Your task to perform on an android device: see sites visited before in the chrome app Image 0: 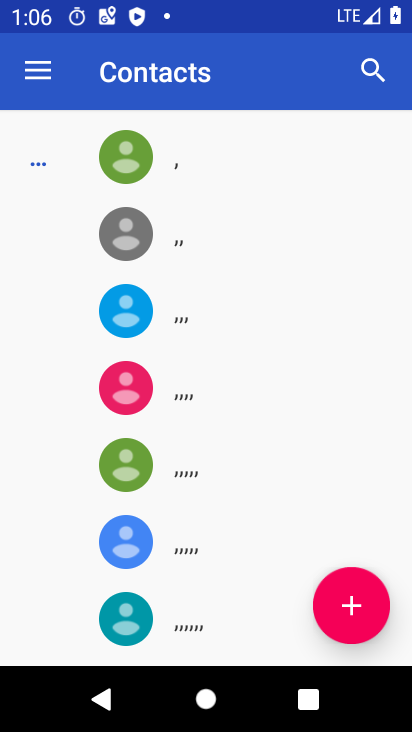
Step 0: press home button
Your task to perform on an android device: see sites visited before in the chrome app Image 1: 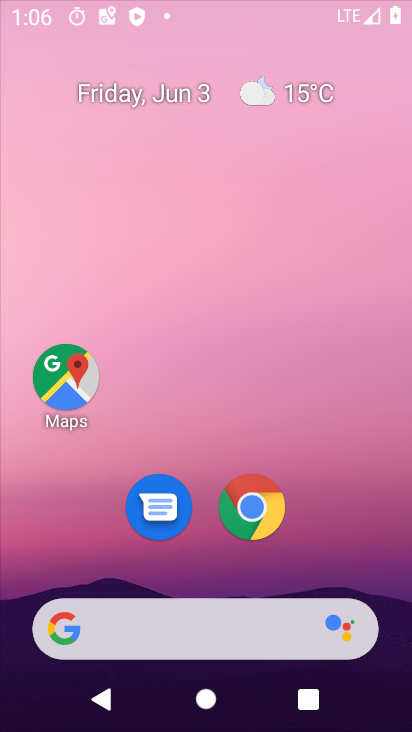
Step 1: drag from (401, 646) to (272, 80)
Your task to perform on an android device: see sites visited before in the chrome app Image 2: 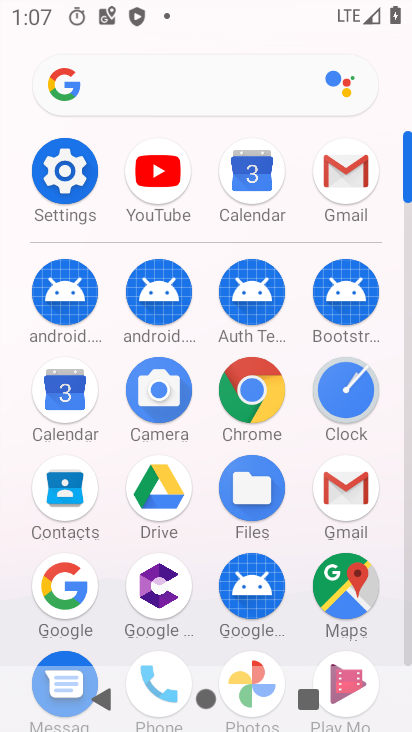
Step 2: click (260, 412)
Your task to perform on an android device: see sites visited before in the chrome app Image 3: 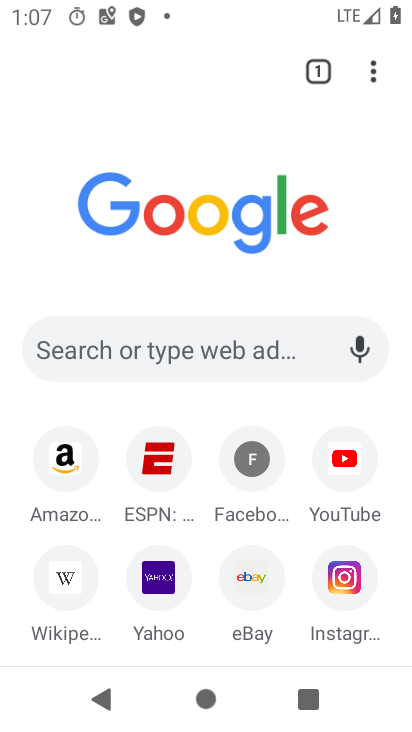
Step 3: click (369, 66)
Your task to perform on an android device: see sites visited before in the chrome app Image 4: 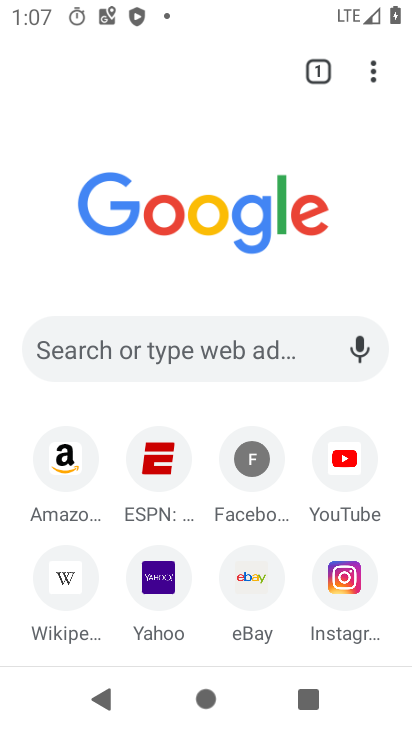
Step 4: click (380, 60)
Your task to perform on an android device: see sites visited before in the chrome app Image 5: 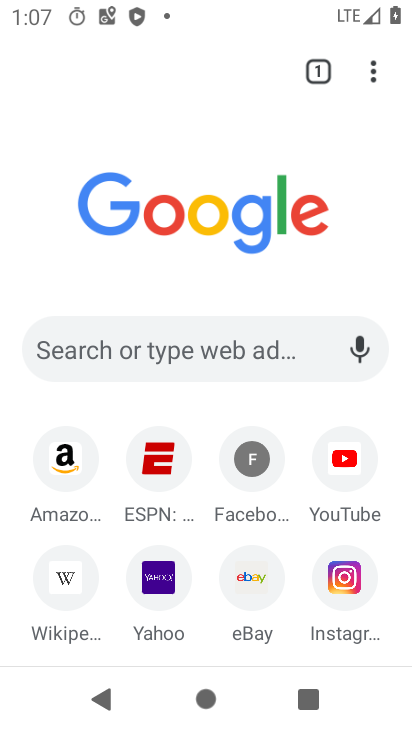
Step 5: click (377, 60)
Your task to perform on an android device: see sites visited before in the chrome app Image 6: 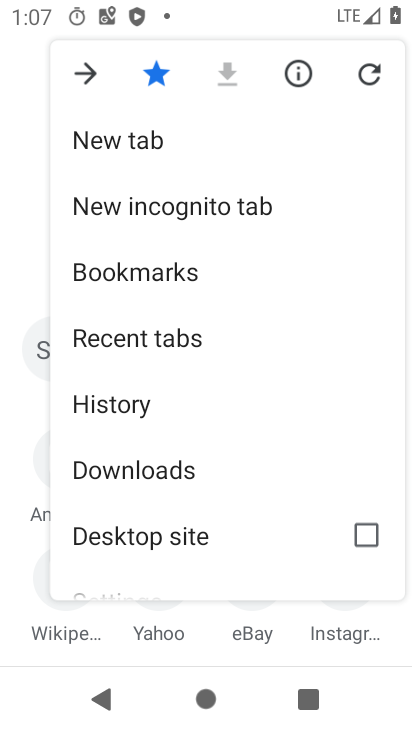
Step 6: click (150, 523)
Your task to perform on an android device: see sites visited before in the chrome app Image 7: 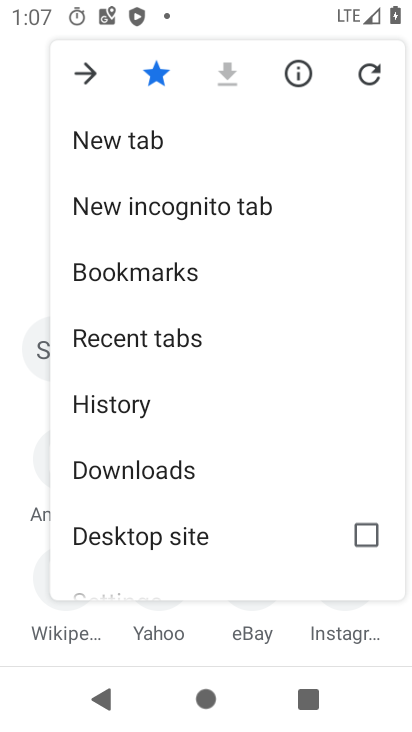
Step 7: drag from (153, 484) to (145, 162)
Your task to perform on an android device: see sites visited before in the chrome app Image 8: 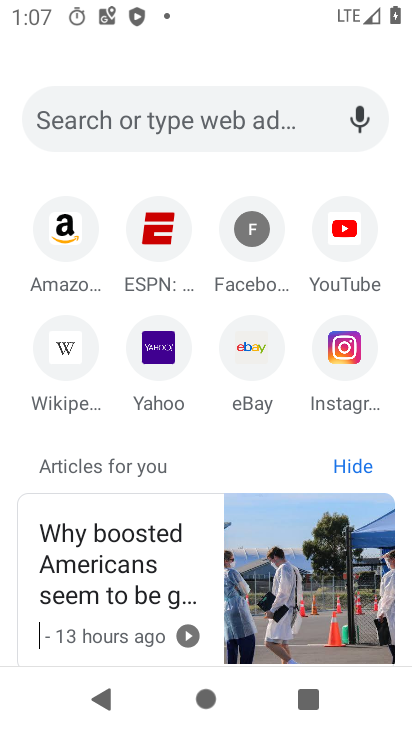
Step 8: drag from (277, 230) to (223, 715)
Your task to perform on an android device: see sites visited before in the chrome app Image 9: 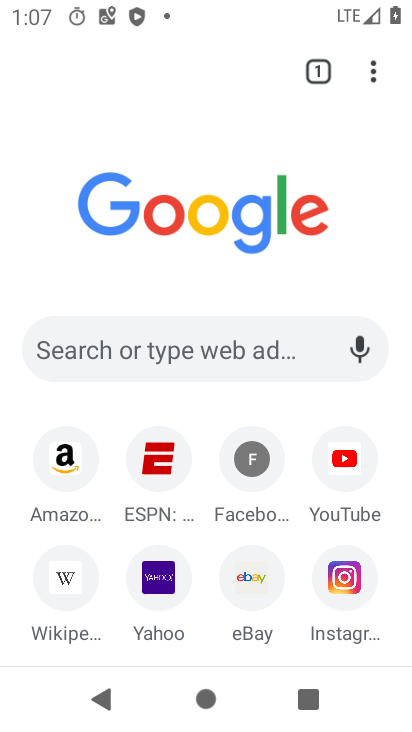
Step 9: click (379, 64)
Your task to perform on an android device: see sites visited before in the chrome app Image 10: 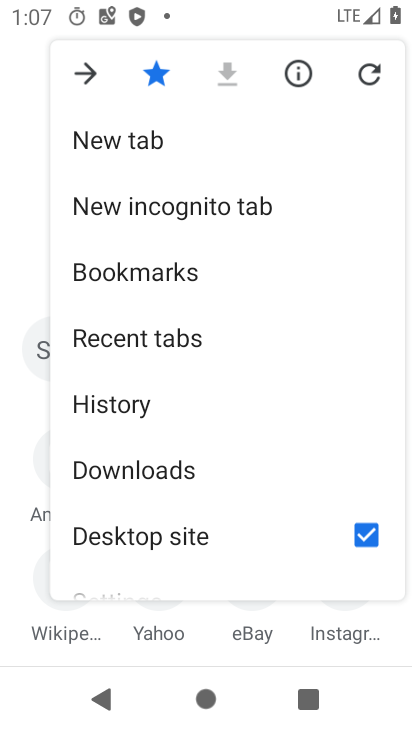
Step 10: click (144, 417)
Your task to perform on an android device: see sites visited before in the chrome app Image 11: 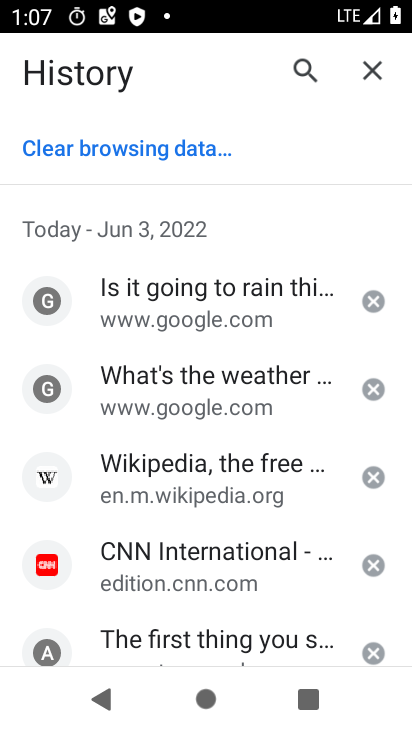
Step 11: click (120, 337)
Your task to perform on an android device: see sites visited before in the chrome app Image 12: 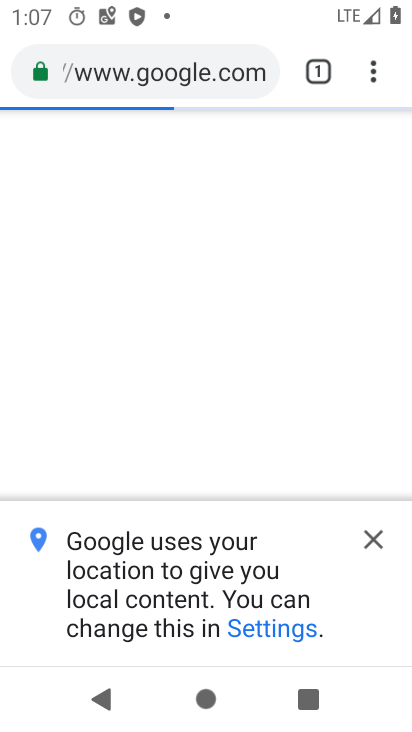
Step 12: click (135, 314)
Your task to perform on an android device: see sites visited before in the chrome app Image 13: 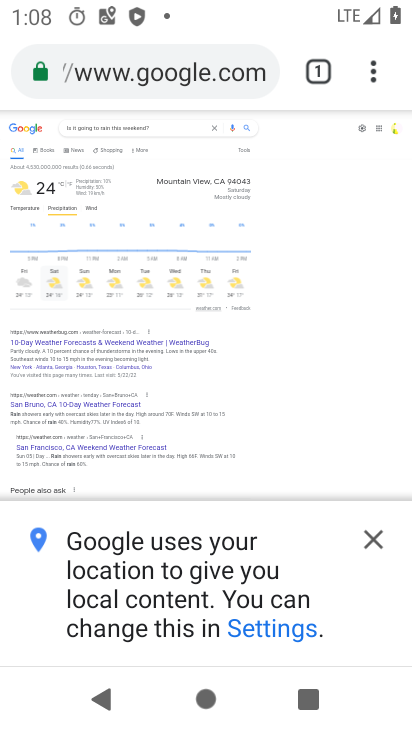
Step 13: task complete